Your task to perform on an android device: allow notifications from all sites in the chrome app Image 0: 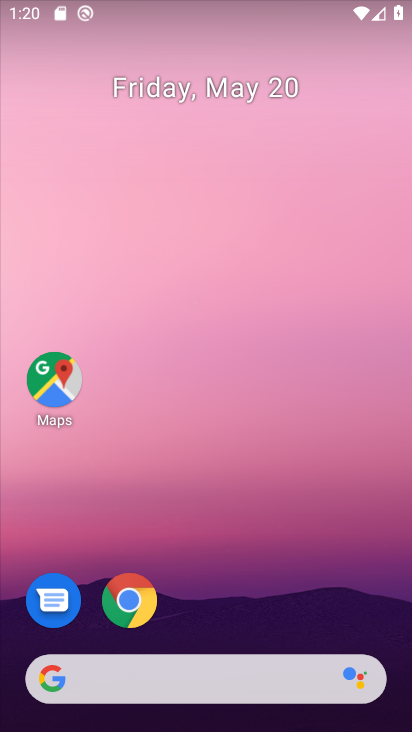
Step 0: click (131, 604)
Your task to perform on an android device: allow notifications from all sites in the chrome app Image 1: 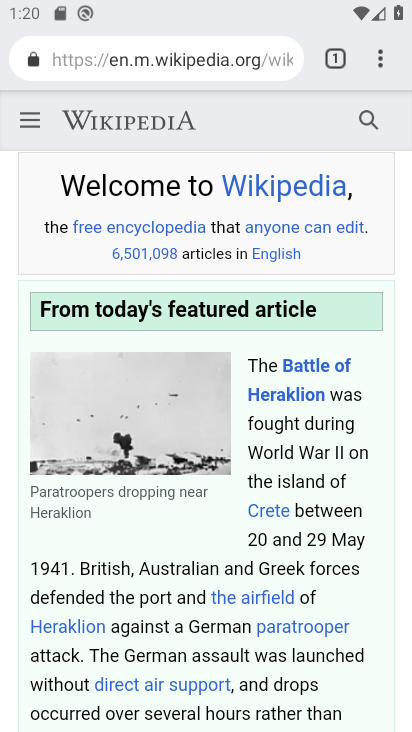
Step 1: click (384, 44)
Your task to perform on an android device: allow notifications from all sites in the chrome app Image 2: 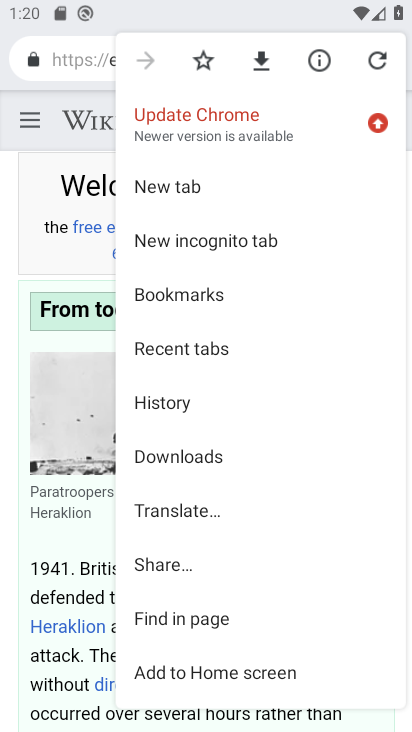
Step 2: drag from (240, 638) to (203, 265)
Your task to perform on an android device: allow notifications from all sites in the chrome app Image 3: 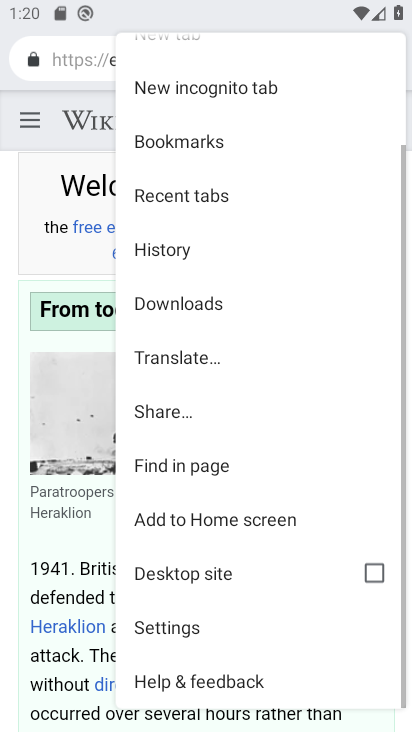
Step 3: click (186, 640)
Your task to perform on an android device: allow notifications from all sites in the chrome app Image 4: 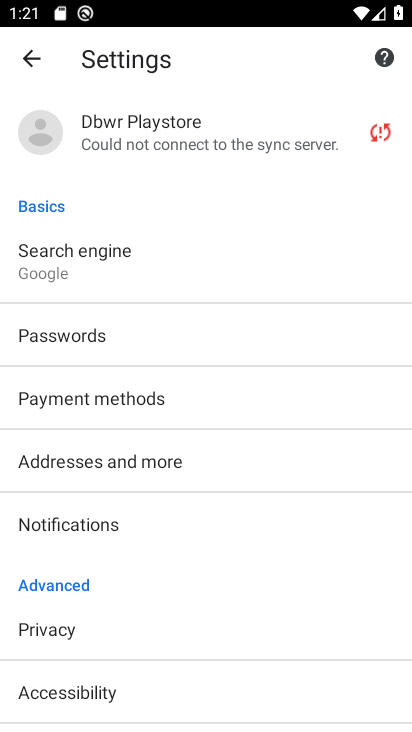
Step 4: drag from (184, 615) to (150, 184)
Your task to perform on an android device: allow notifications from all sites in the chrome app Image 5: 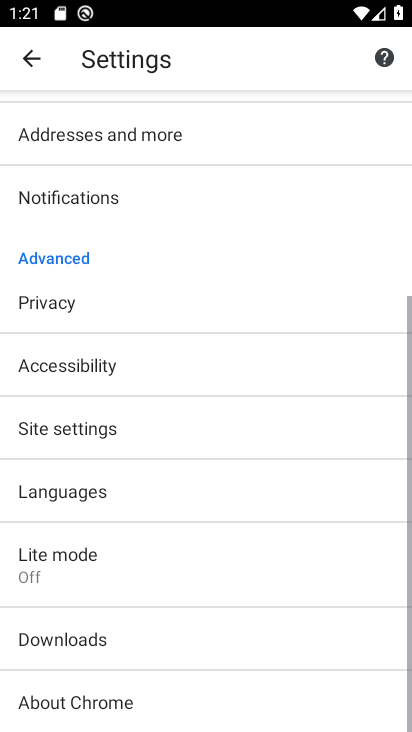
Step 5: click (178, 428)
Your task to perform on an android device: allow notifications from all sites in the chrome app Image 6: 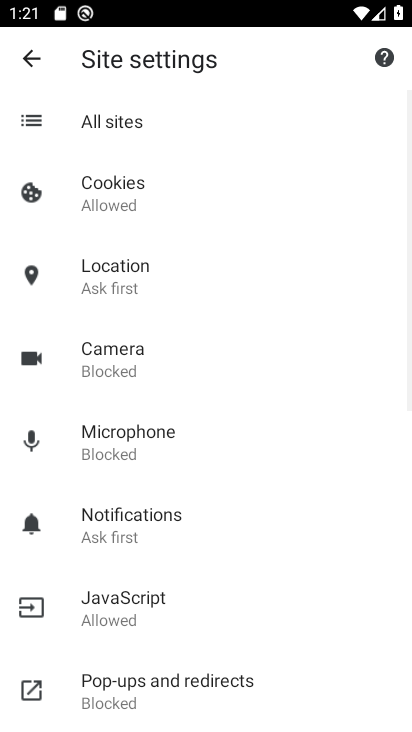
Step 6: click (170, 522)
Your task to perform on an android device: allow notifications from all sites in the chrome app Image 7: 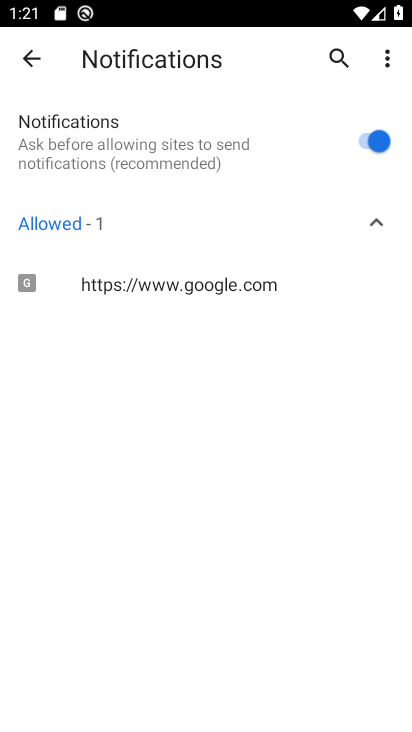
Step 7: task complete